Your task to perform on an android device: Is it going to rain today? Image 0: 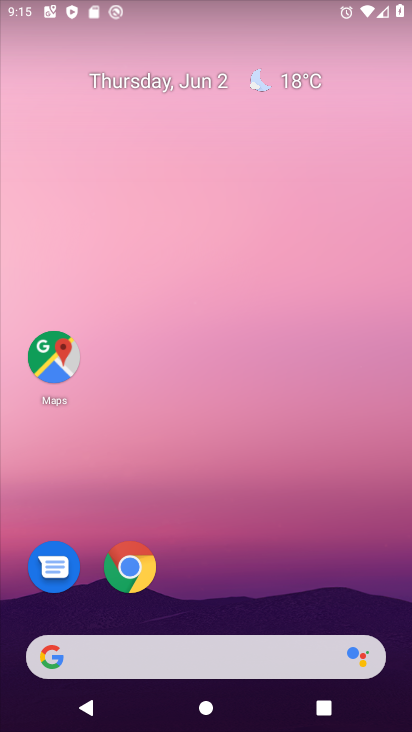
Step 0: drag from (218, 600) to (254, 104)
Your task to perform on an android device: Is it going to rain today? Image 1: 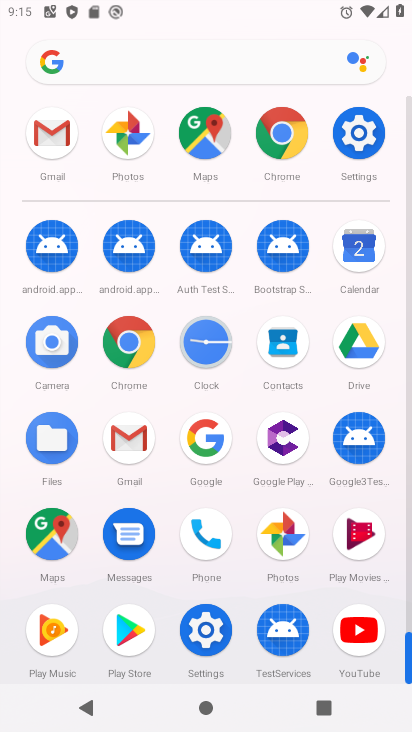
Step 1: click (238, 79)
Your task to perform on an android device: Is it going to rain today? Image 2: 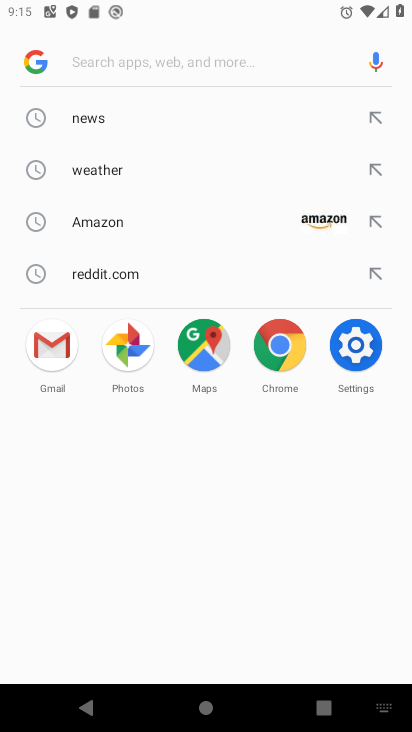
Step 2: click (118, 162)
Your task to perform on an android device: Is it going to rain today? Image 3: 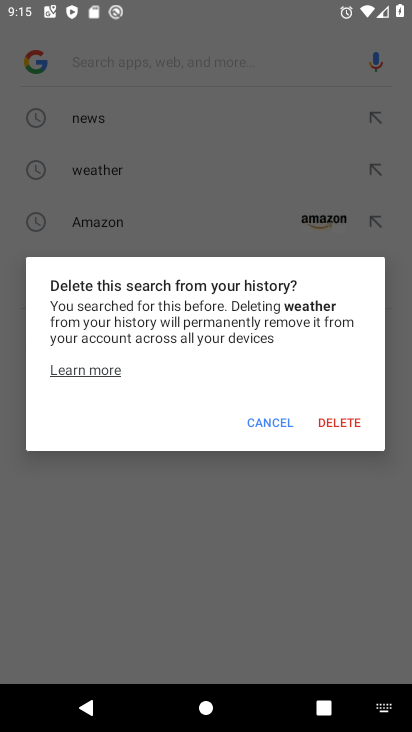
Step 3: click (250, 423)
Your task to perform on an android device: Is it going to rain today? Image 4: 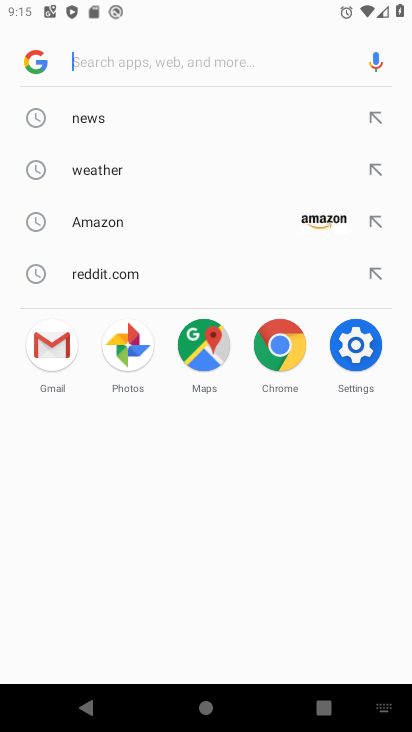
Step 4: click (108, 167)
Your task to perform on an android device: Is it going to rain today? Image 5: 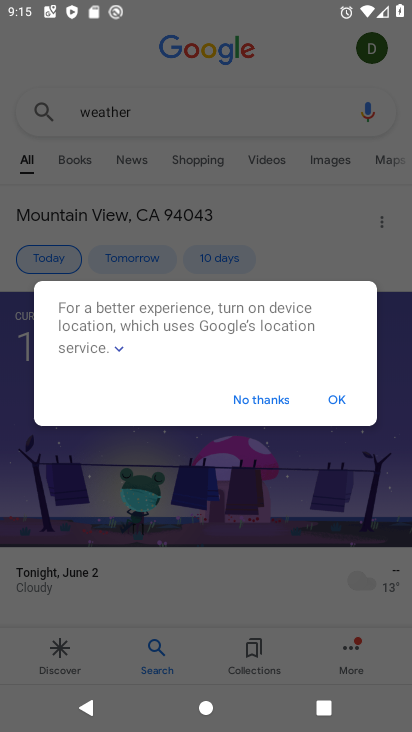
Step 5: click (241, 468)
Your task to perform on an android device: Is it going to rain today? Image 6: 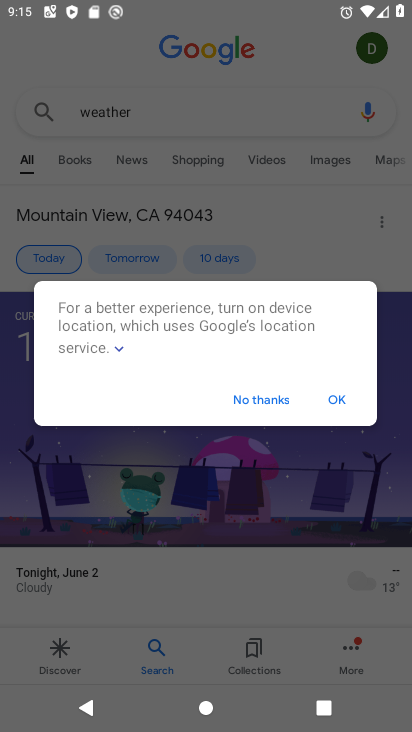
Step 6: click (268, 408)
Your task to perform on an android device: Is it going to rain today? Image 7: 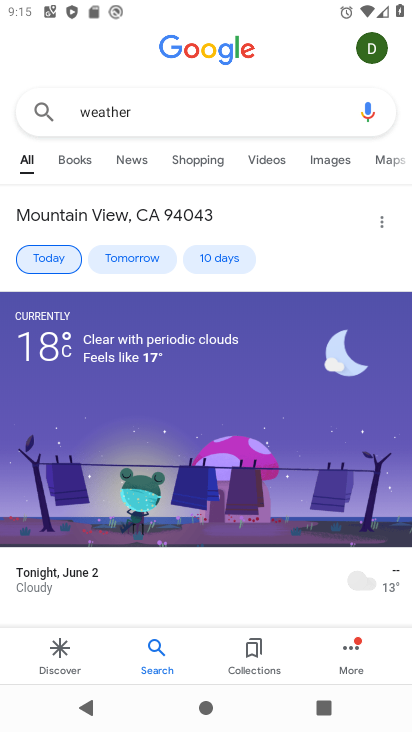
Step 7: task complete